Your task to perform on an android device: Go to calendar. Show me events next week Image 0: 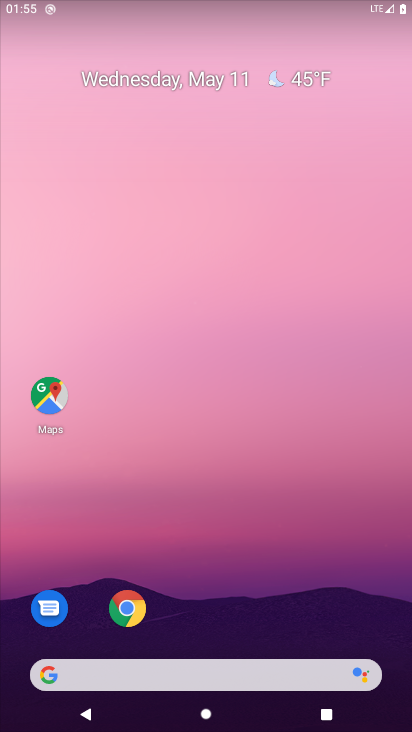
Step 0: press home button
Your task to perform on an android device: Go to calendar. Show me events next week Image 1: 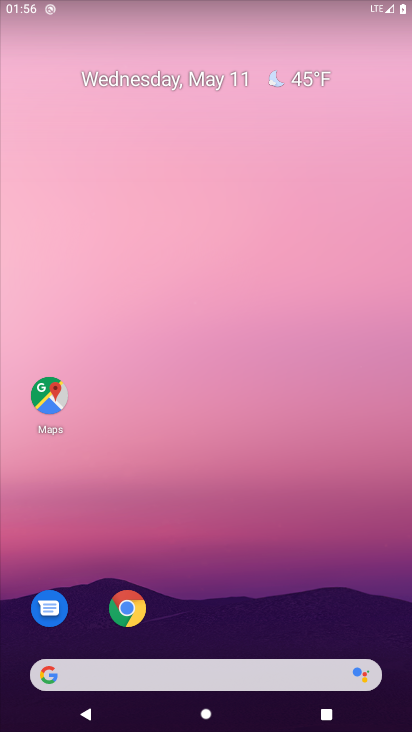
Step 1: drag from (215, 632) to (291, 36)
Your task to perform on an android device: Go to calendar. Show me events next week Image 2: 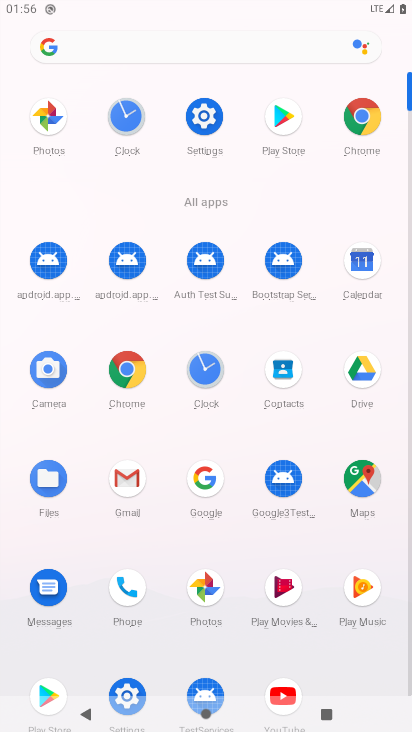
Step 2: click (363, 255)
Your task to perform on an android device: Go to calendar. Show me events next week Image 3: 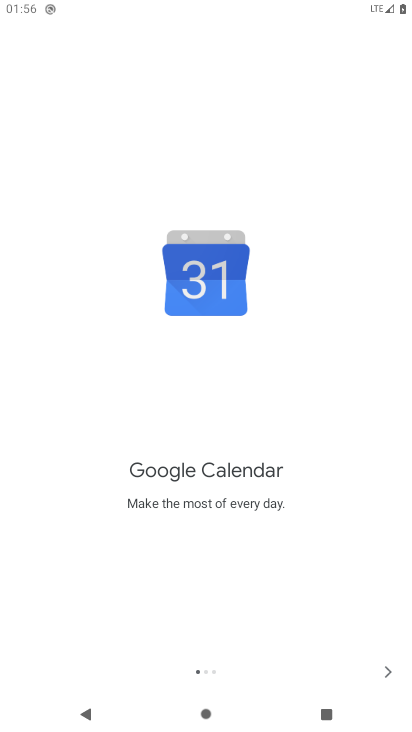
Step 3: click (389, 667)
Your task to perform on an android device: Go to calendar. Show me events next week Image 4: 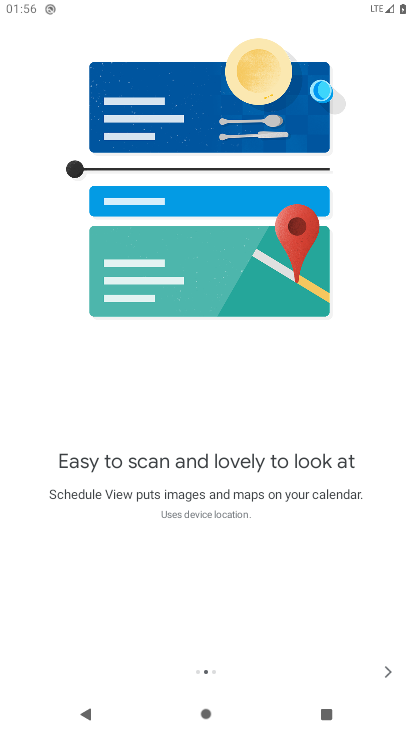
Step 4: click (385, 665)
Your task to perform on an android device: Go to calendar. Show me events next week Image 5: 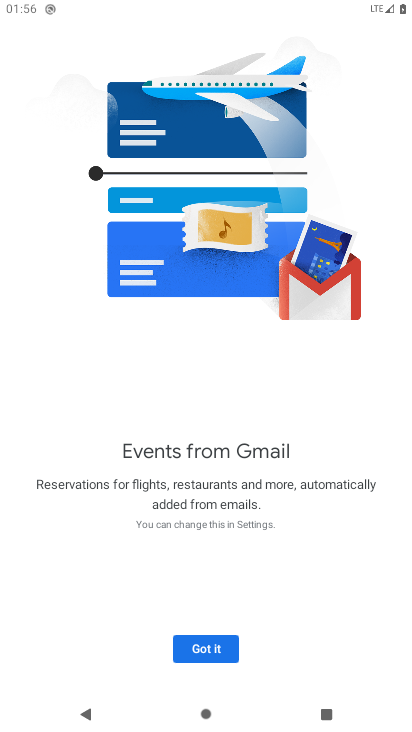
Step 5: click (203, 652)
Your task to perform on an android device: Go to calendar. Show me events next week Image 6: 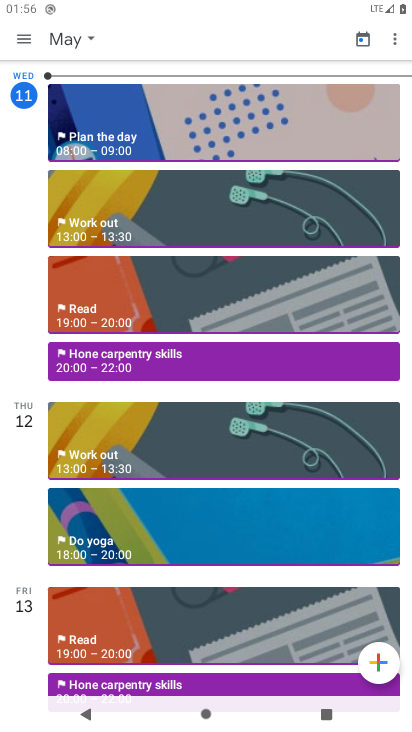
Step 6: drag from (24, 581) to (11, 228)
Your task to perform on an android device: Go to calendar. Show me events next week Image 7: 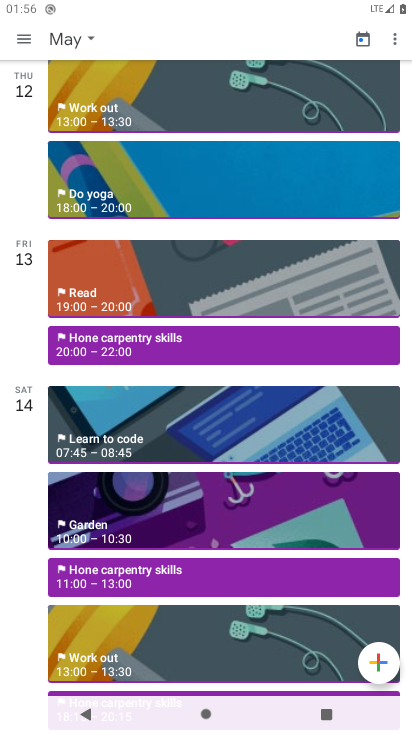
Step 7: click (21, 34)
Your task to perform on an android device: Go to calendar. Show me events next week Image 8: 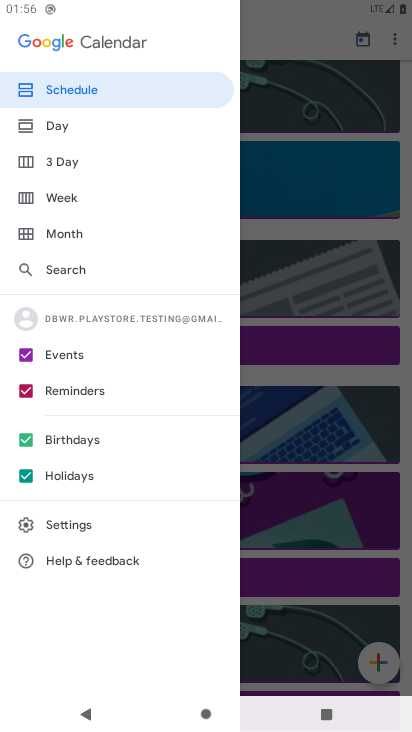
Step 8: click (24, 478)
Your task to perform on an android device: Go to calendar. Show me events next week Image 9: 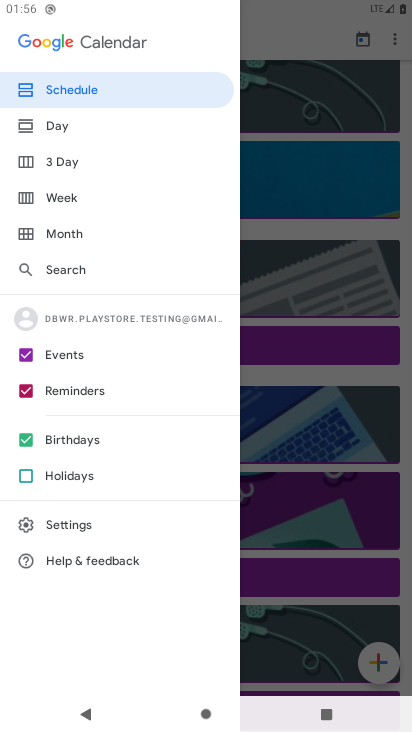
Step 9: click (25, 437)
Your task to perform on an android device: Go to calendar. Show me events next week Image 10: 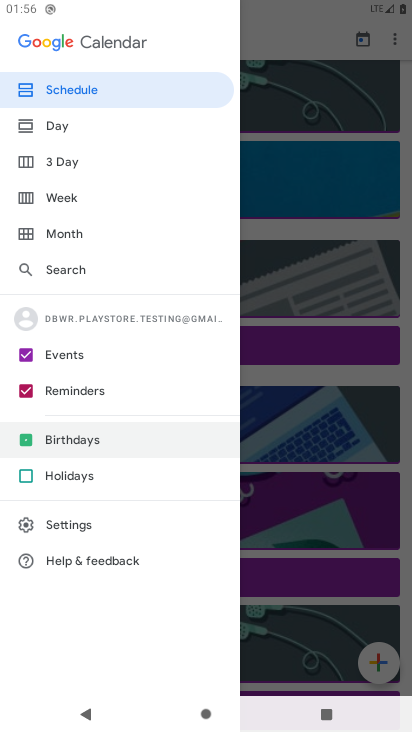
Step 10: click (27, 387)
Your task to perform on an android device: Go to calendar. Show me events next week Image 11: 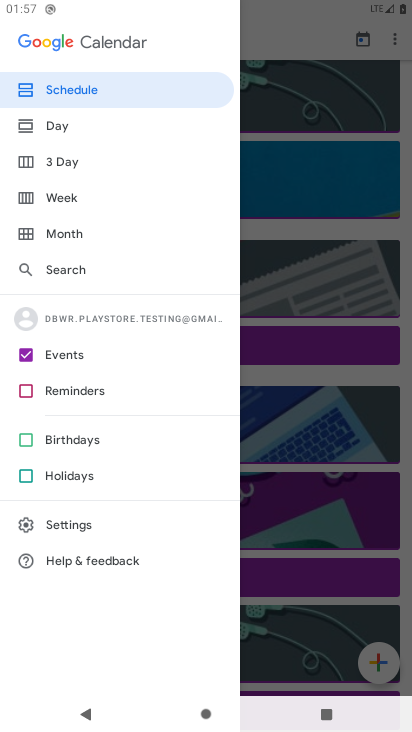
Step 11: click (43, 201)
Your task to perform on an android device: Go to calendar. Show me events next week Image 12: 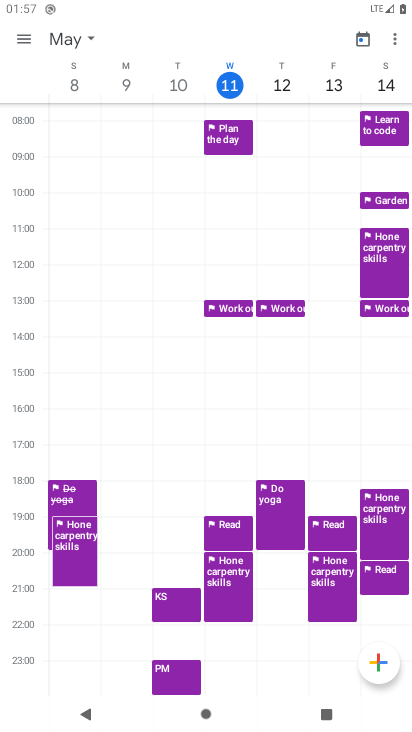
Step 12: drag from (382, 92) to (44, 84)
Your task to perform on an android device: Go to calendar. Show me events next week Image 13: 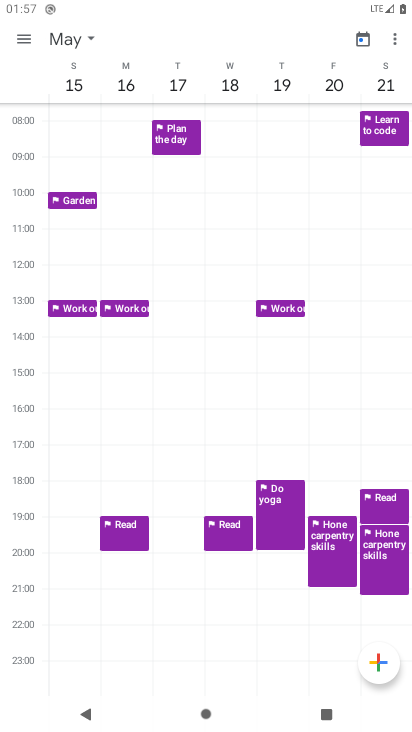
Step 13: click (71, 77)
Your task to perform on an android device: Go to calendar. Show me events next week Image 14: 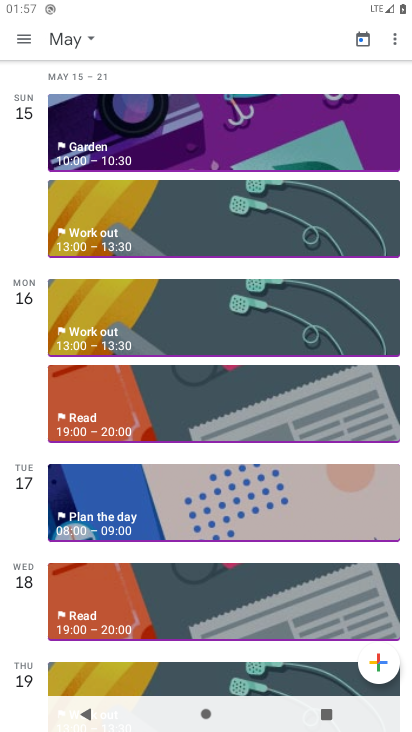
Step 14: task complete